Your task to perform on an android device: Show me popular games on the Play Store Image 0: 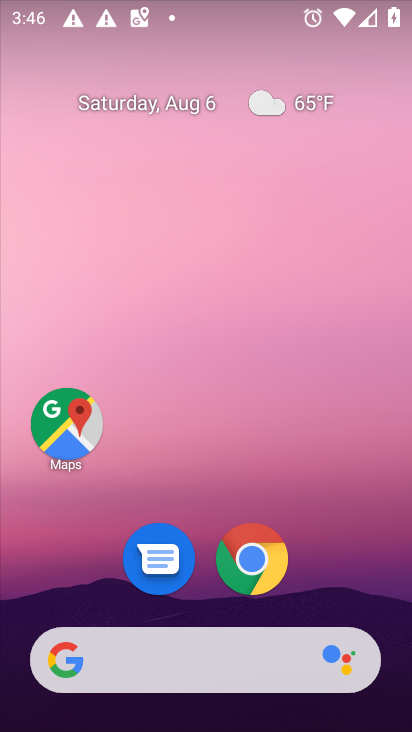
Step 0: drag from (325, 552) to (308, 88)
Your task to perform on an android device: Show me popular games on the Play Store Image 1: 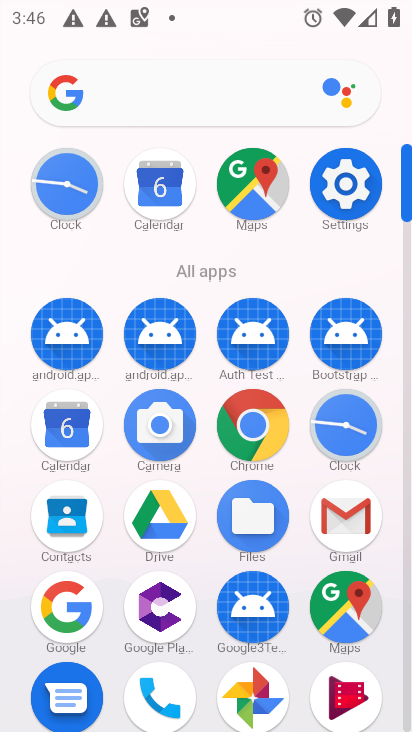
Step 1: drag from (196, 567) to (240, 179)
Your task to perform on an android device: Show me popular games on the Play Store Image 2: 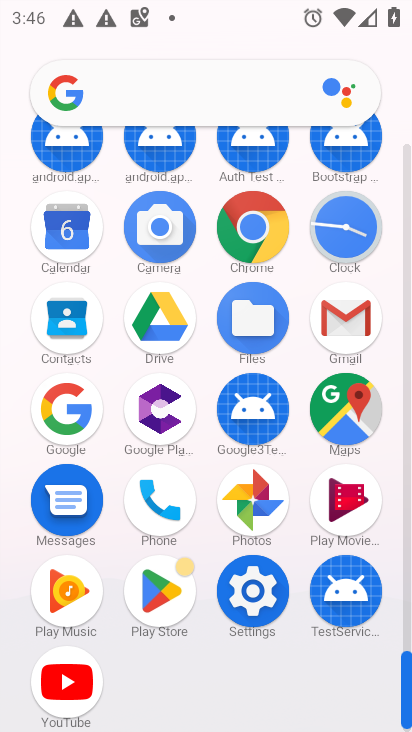
Step 2: click (155, 596)
Your task to perform on an android device: Show me popular games on the Play Store Image 3: 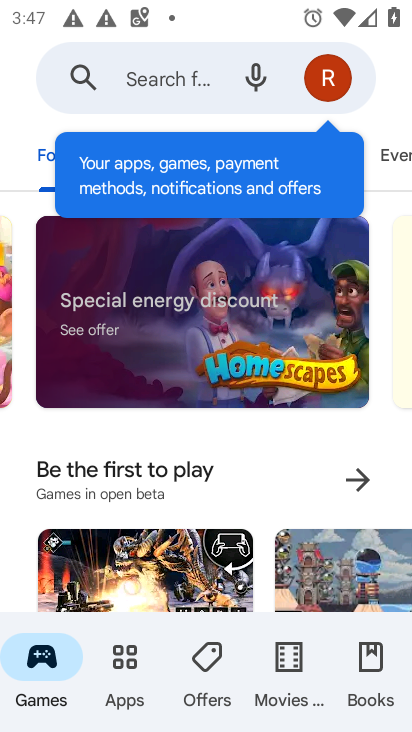
Step 3: task complete